Your task to perform on an android device: Open Reddit.com Image 0: 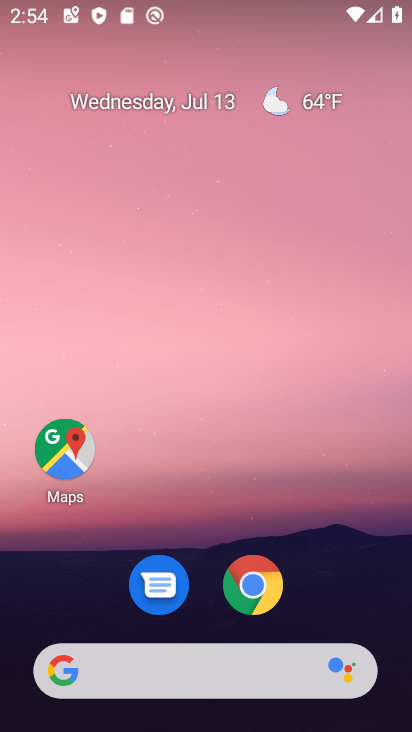
Step 0: click (255, 589)
Your task to perform on an android device: Open Reddit.com Image 1: 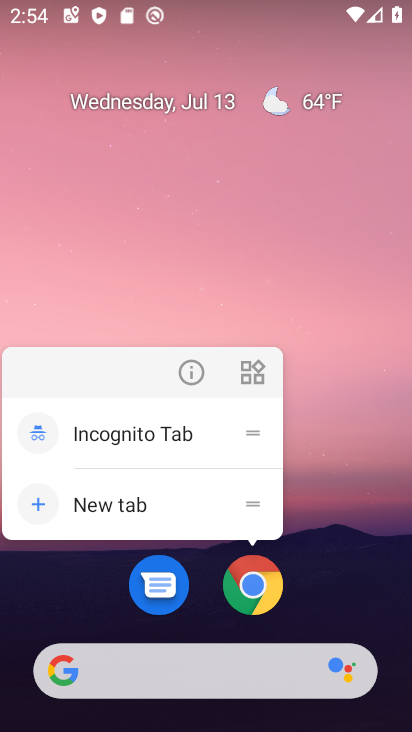
Step 1: click (266, 592)
Your task to perform on an android device: Open Reddit.com Image 2: 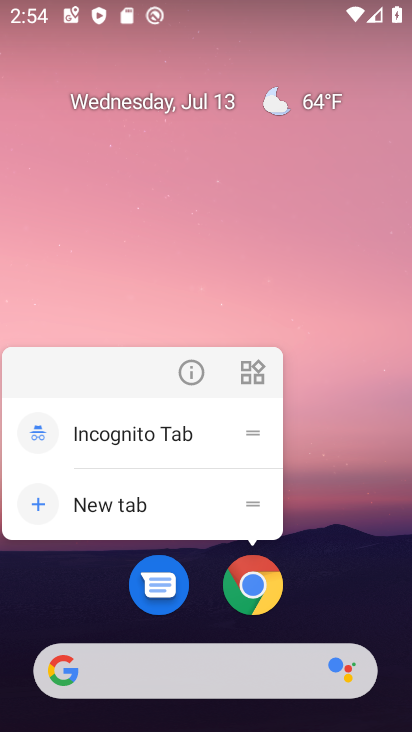
Step 2: click (255, 588)
Your task to perform on an android device: Open Reddit.com Image 3: 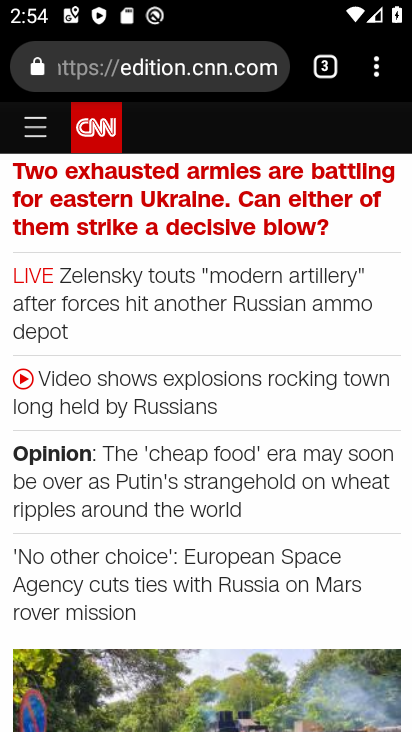
Step 3: drag from (372, 72) to (193, 123)
Your task to perform on an android device: Open Reddit.com Image 4: 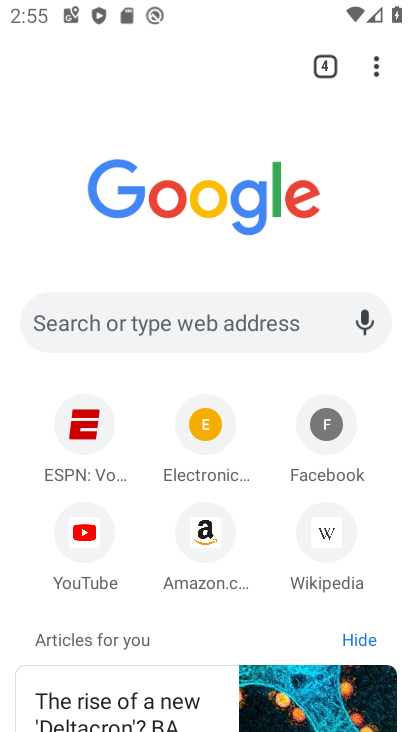
Step 4: click (137, 309)
Your task to perform on an android device: Open Reddit.com Image 5: 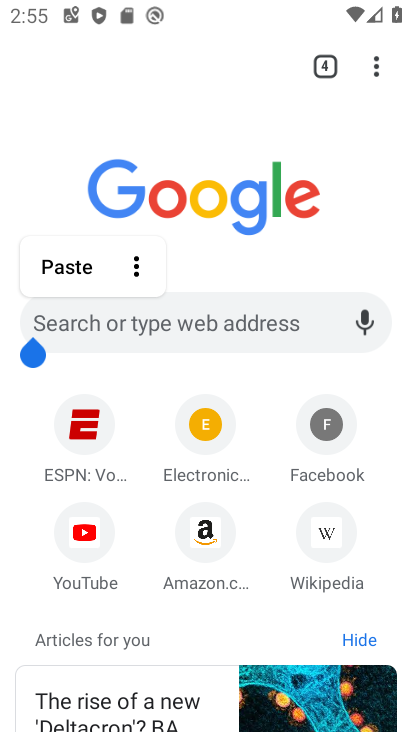
Step 5: click (238, 322)
Your task to perform on an android device: Open Reddit.com Image 6: 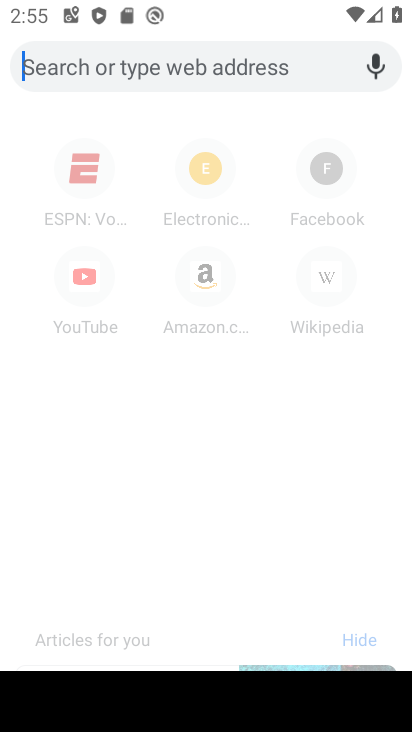
Step 6: type "reddit.com"
Your task to perform on an android device: Open Reddit.com Image 7: 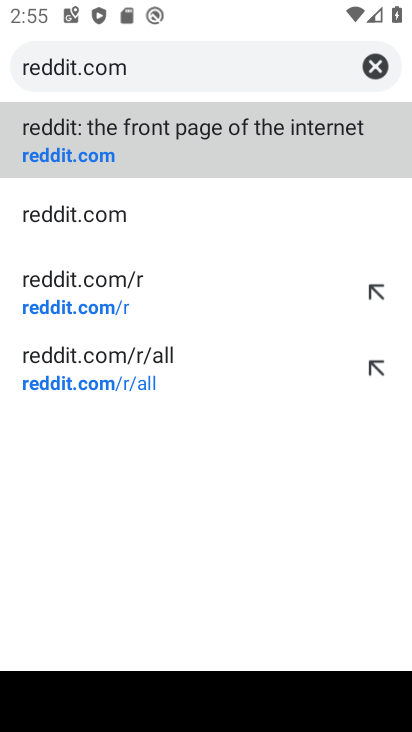
Step 7: click (286, 139)
Your task to perform on an android device: Open Reddit.com Image 8: 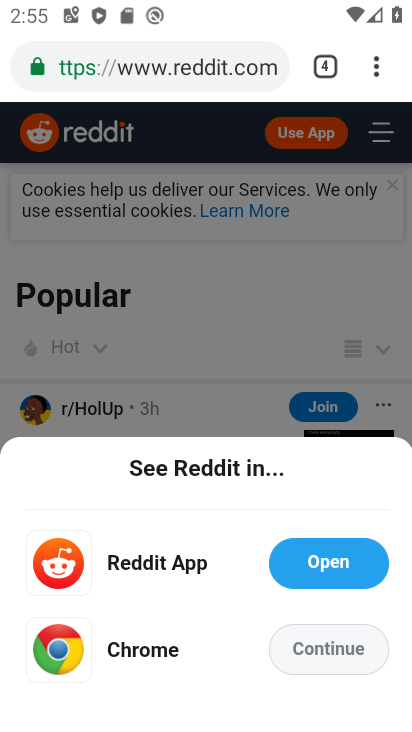
Step 8: task complete